Your task to perform on an android device: Search for flights from Tokyo to Seoul Image 0: 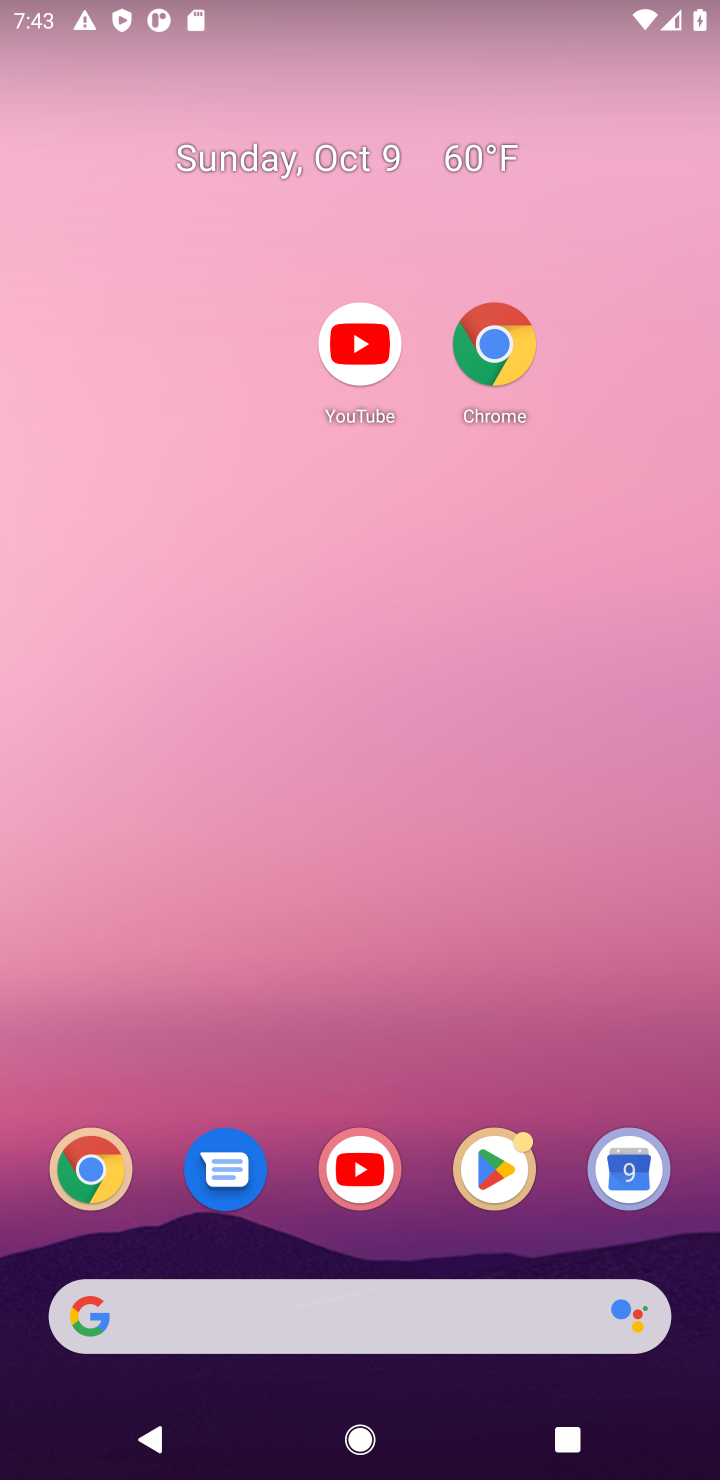
Step 0: drag from (423, 1234) to (432, 441)
Your task to perform on an android device: Search for flights from Tokyo to Seoul Image 1: 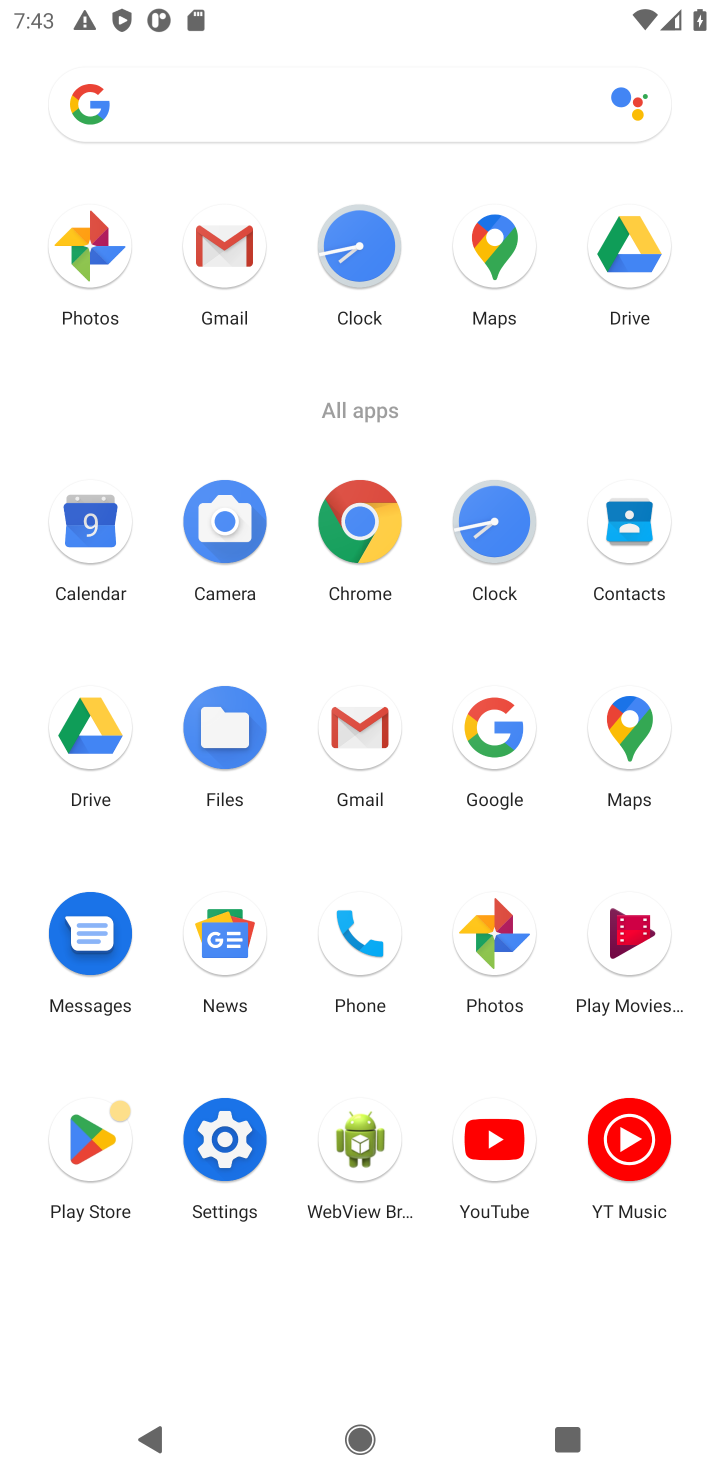
Step 1: click (359, 520)
Your task to perform on an android device: Search for flights from Tokyo to Seoul Image 2: 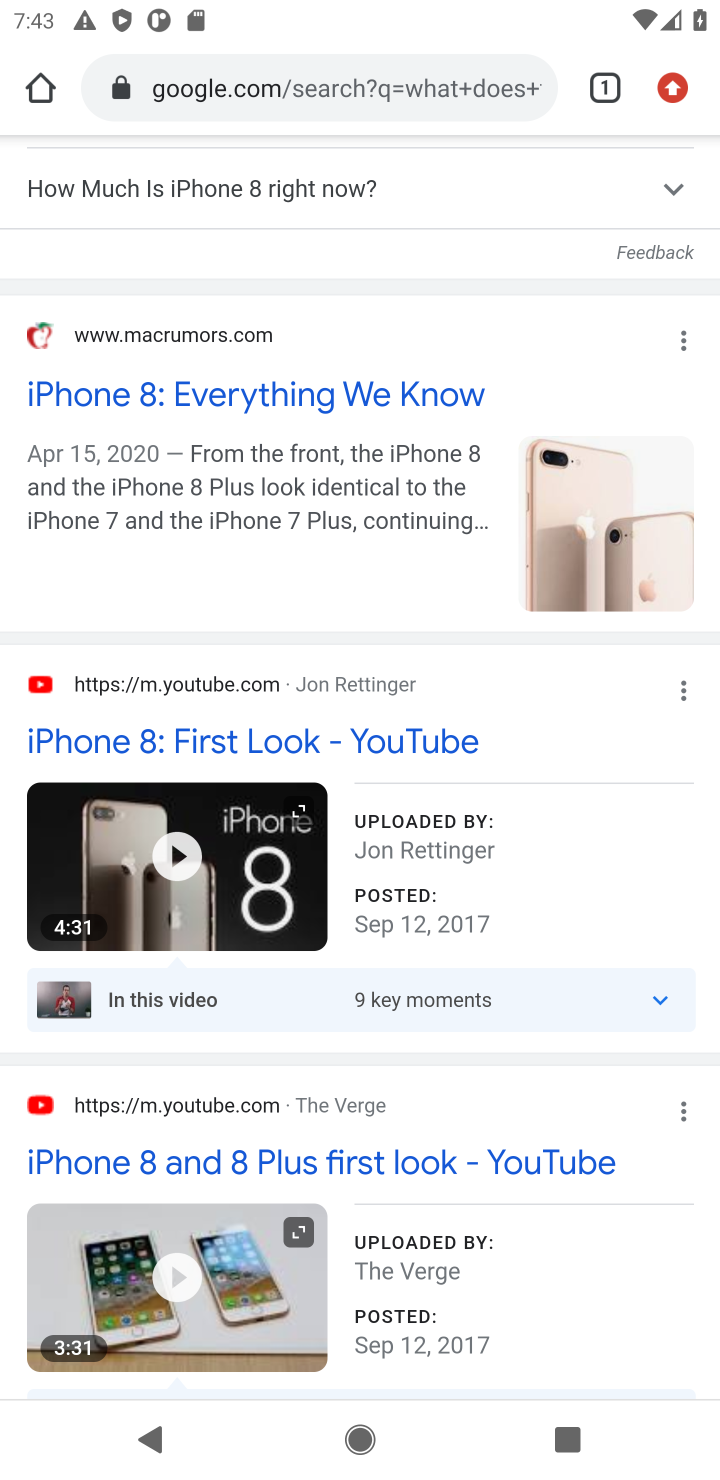
Step 2: click (339, 86)
Your task to perform on an android device: Search for flights from Tokyo to Seoul Image 3: 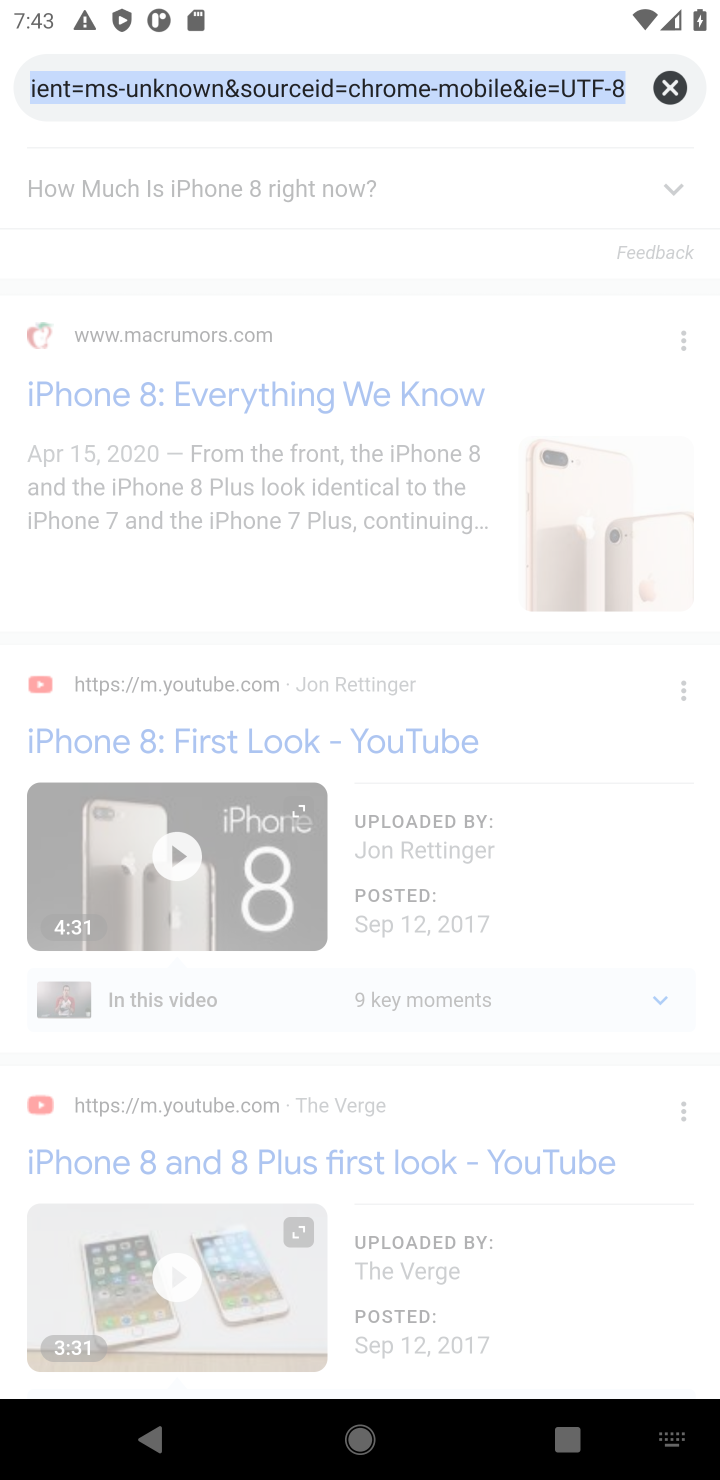
Step 3: type "Tokyo to Seoul flight"
Your task to perform on an android device: Search for flights from Tokyo to Seoul Image 4: 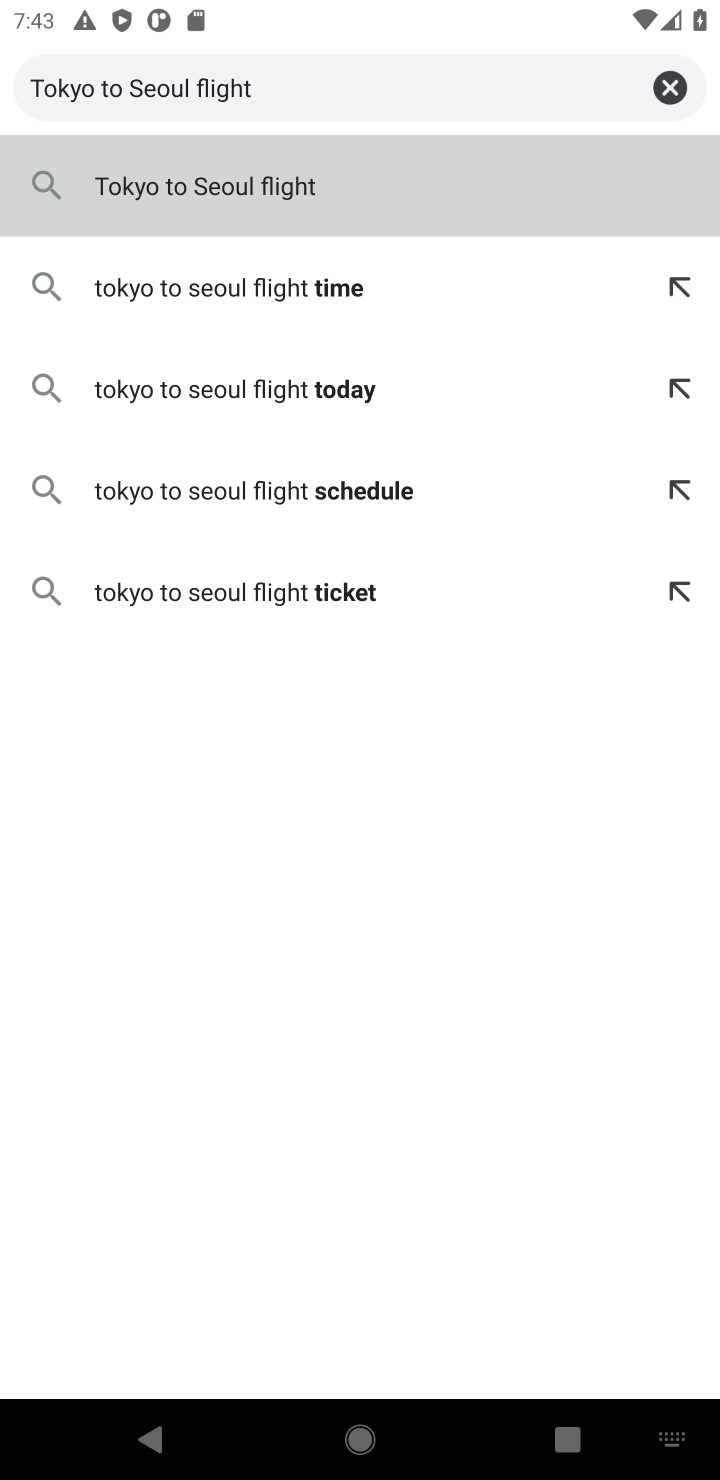
Step 4: click (451, 212)
Your task to perform on an android device: Search for flights from Tokyo to Seoul Image 5: 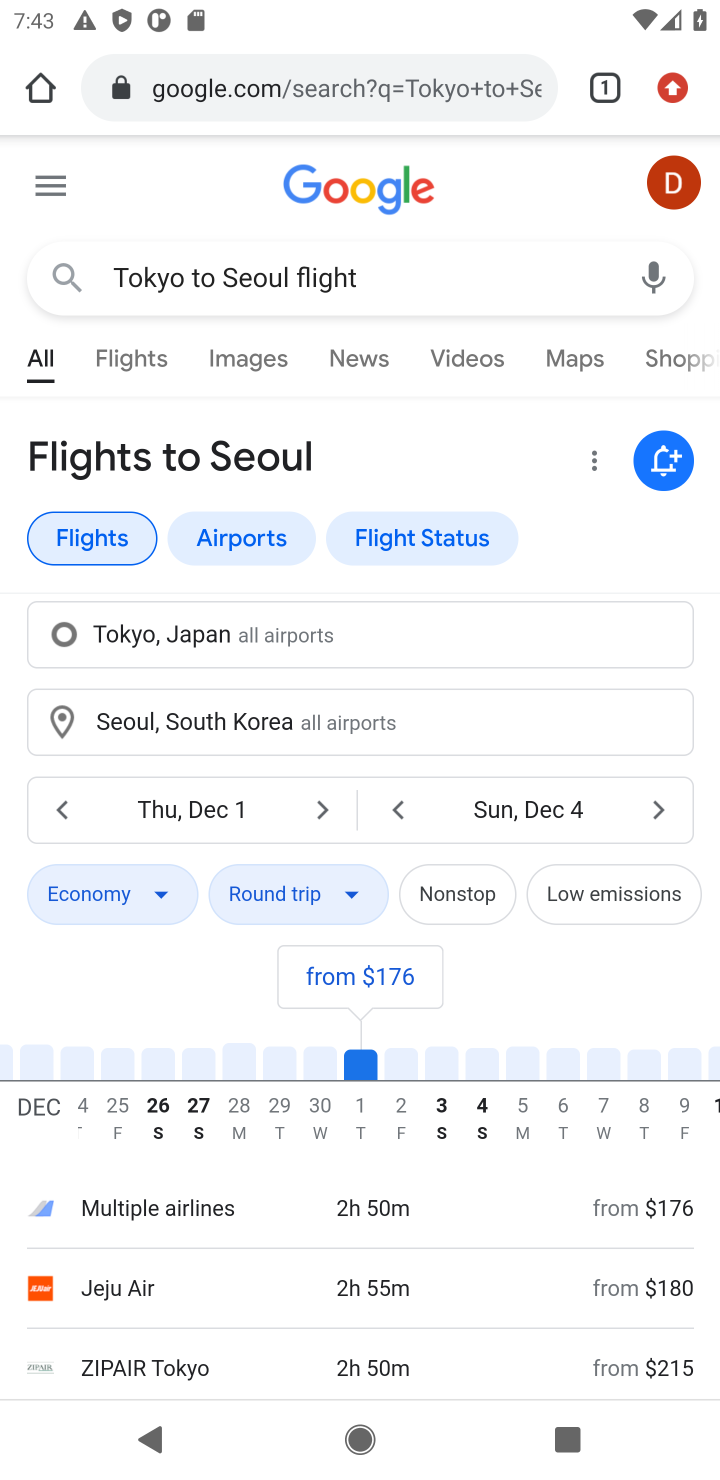
Step 5: task complete